Your task to perform on an android device: choose inbox layout in the gmail app Image 0: 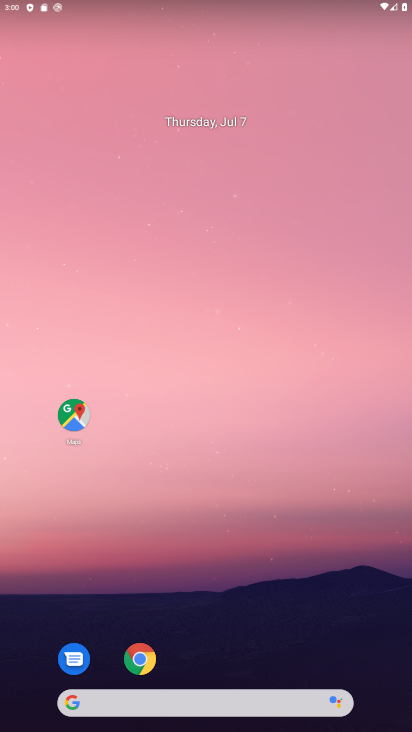
Step 0: drag from (279, 605) to (161, 60)
Your task to perform on an android device: choose inbox layout in the gmail app Image 1: 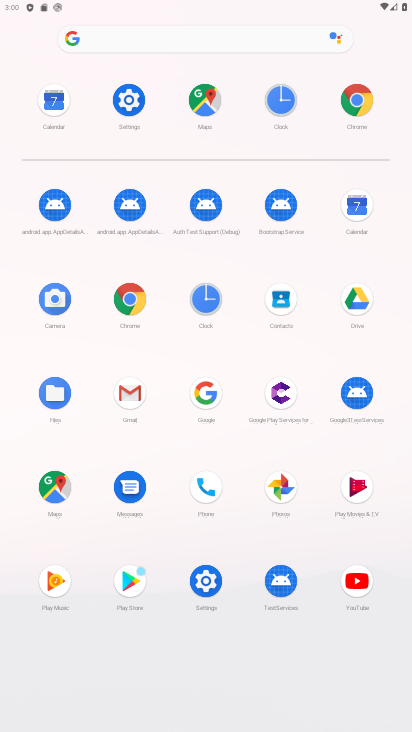
Step 1: click (133, 388)
Your task to perform on an android device: choose inbox layout in the gmail app Image 2: 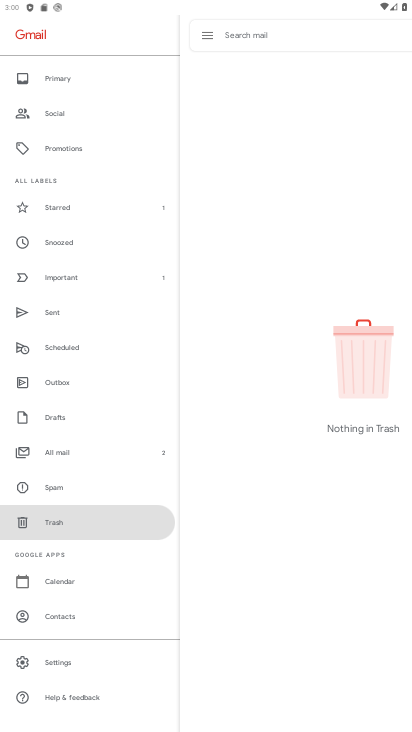
Step 2: click (72, 667)
Your task to perform on an android device: choose inbox layout in the gmail app Image 3: 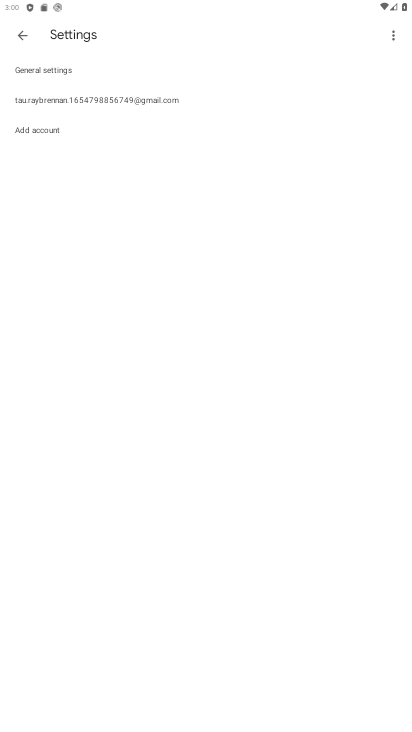
Step 3: click (142, 92)
Your task to perform on an android device: choose inbox layout in the gmail app Image 4: 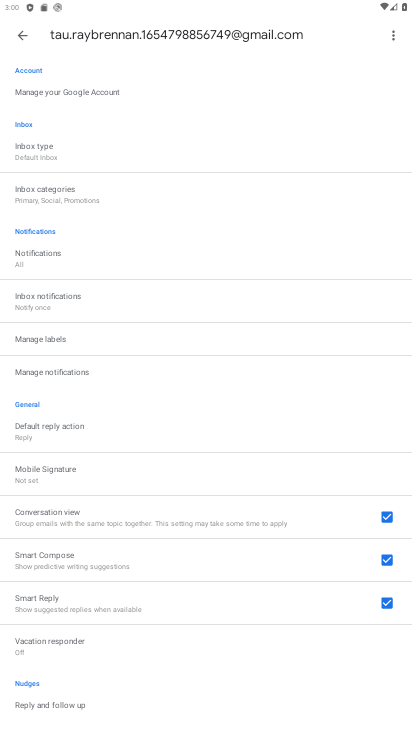
Step 4: click (130, 158)
Your task to perform on an android device: choose inbox layout in the gmail app Image 5: 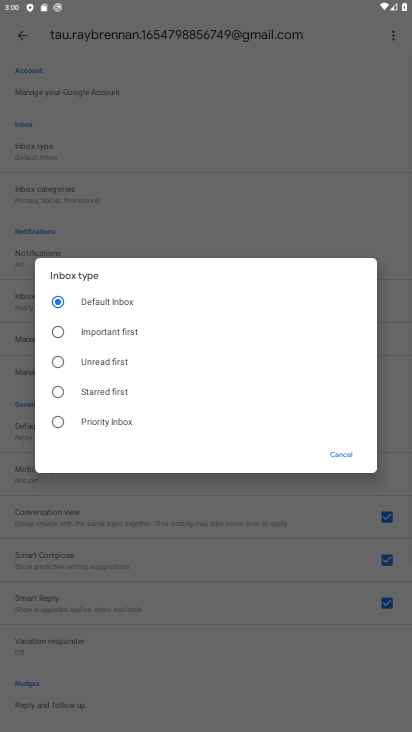
Step 5: click (132, 331)
Your task to perform on an android device: choose inbox layout in the gmail app Image 6: 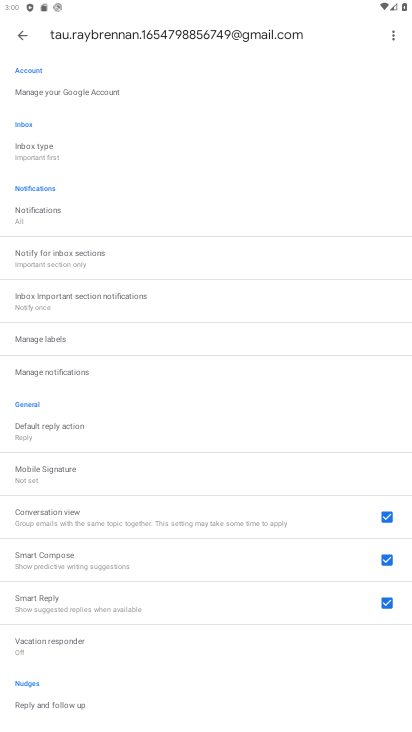
Step 6: task complete